Your task to perform on an android device: find snoozed emails in the gmail app Image 0: 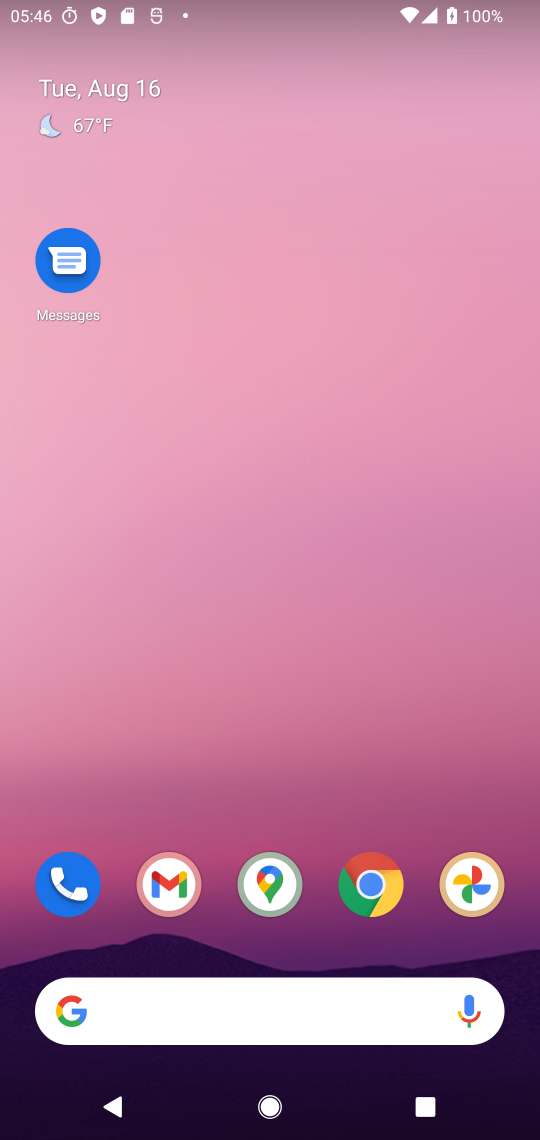
Step 0: press home button
Your task to perform on an android device: find snoozed emails in the gmail app Image 1: 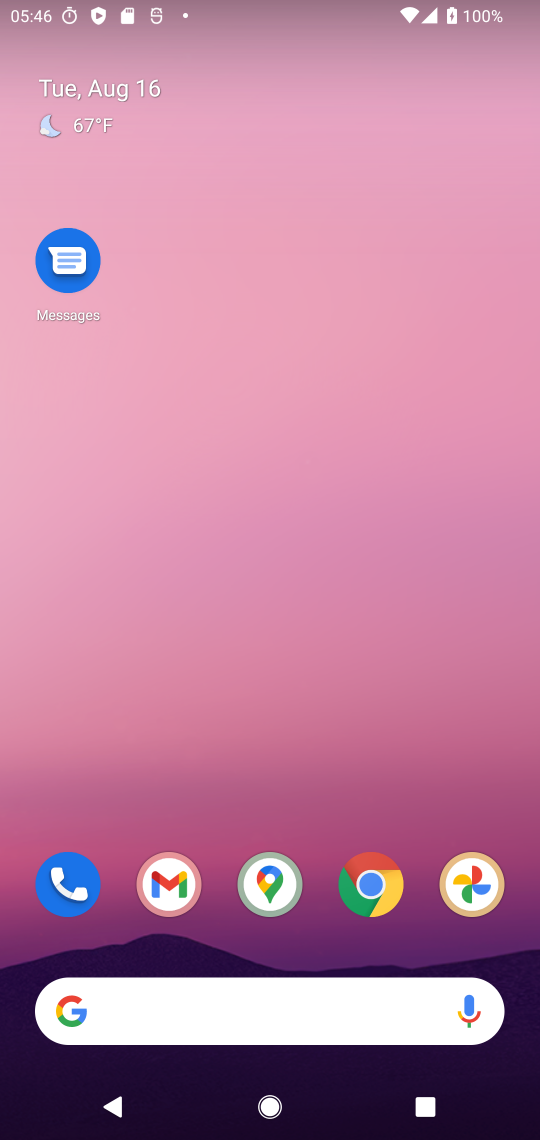
Step 1: click (174, 875)
Your task to perform on an android device: find snoozed emails in the gmail app Image 2: 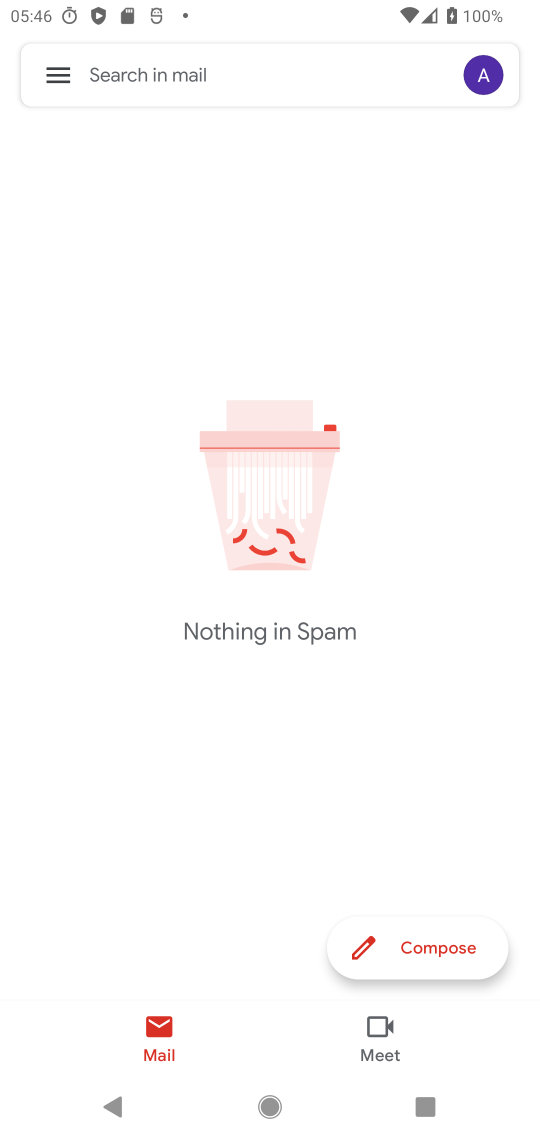
Step 2: click (54, 83)
Your task to perform on an android device: find snoozed emails in the gmail app Image 3: 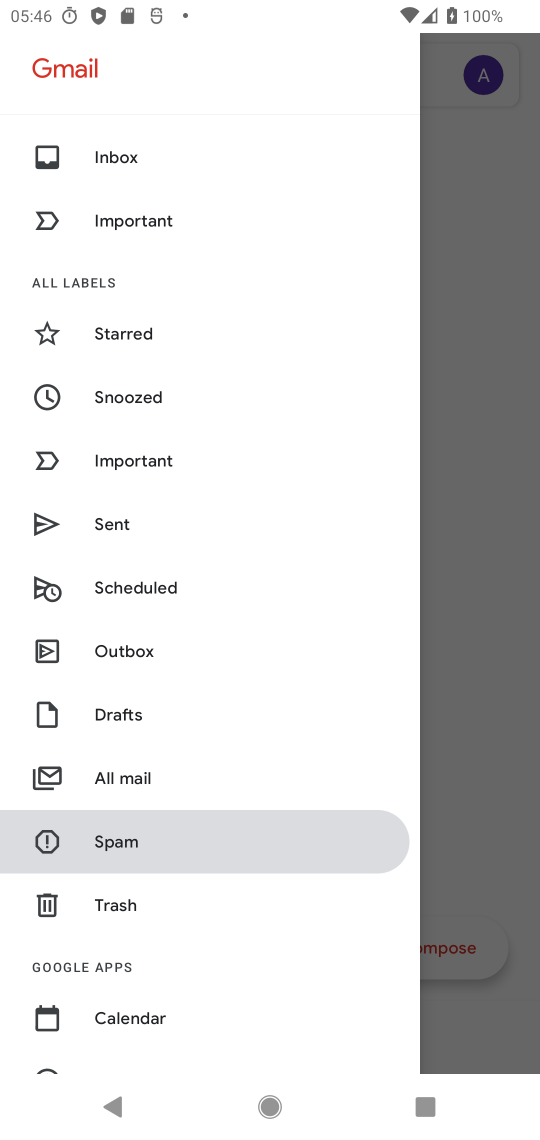
Step 3: click (167, 402)
Your task to perform on an android device: find snoozed emails in the gmail app Image 4: 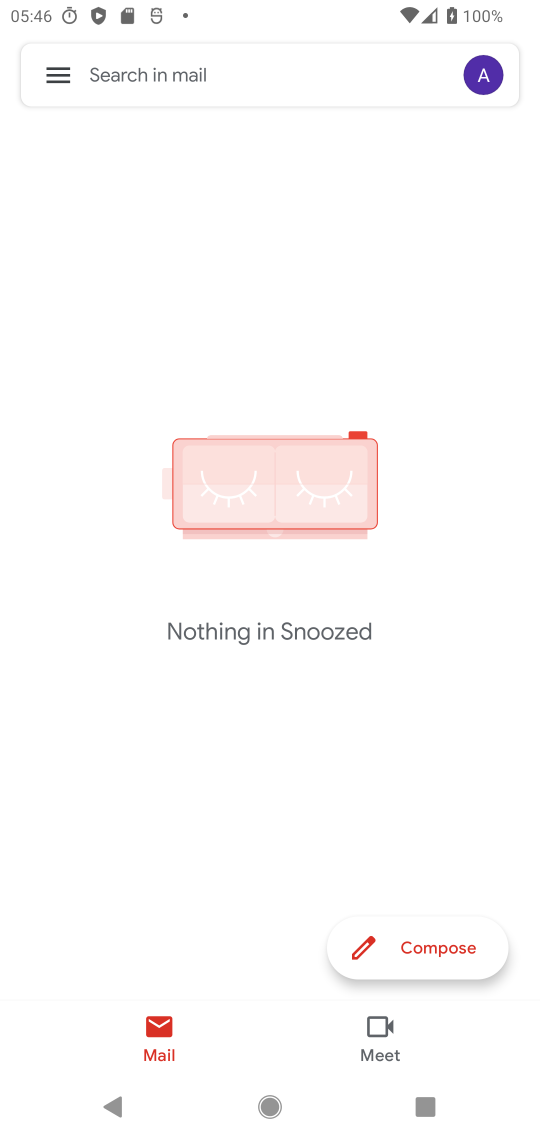
Step 4: task complete